Your task to perform on an android device: Open internet settings Image 0: 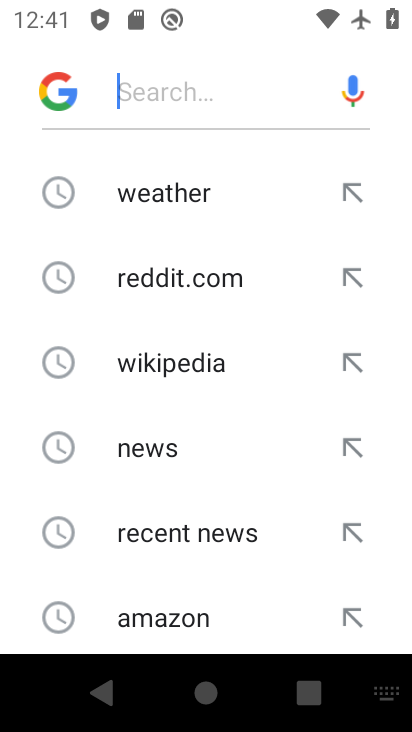
Step 0: press home button
Your task to perform on an android device: Open internet settings Image 1: 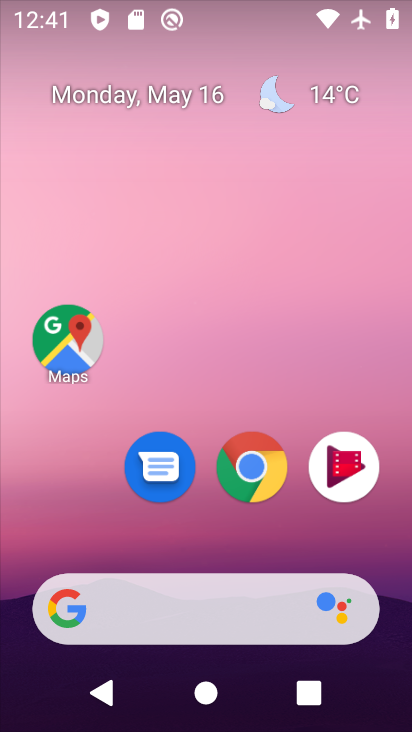
Step 1: drag from (131, 613) to (232, 268)
Your task to perform on an android device: Open internet settings Image 2: 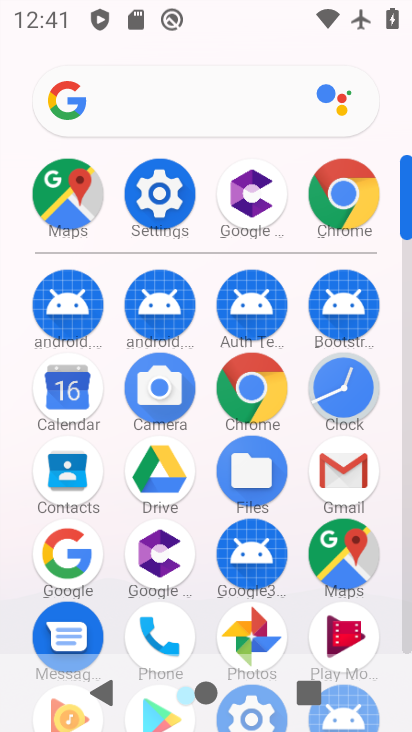
Step 2: click (172, 176)
Your task to perform on an android device: Open internet settings Image 3: 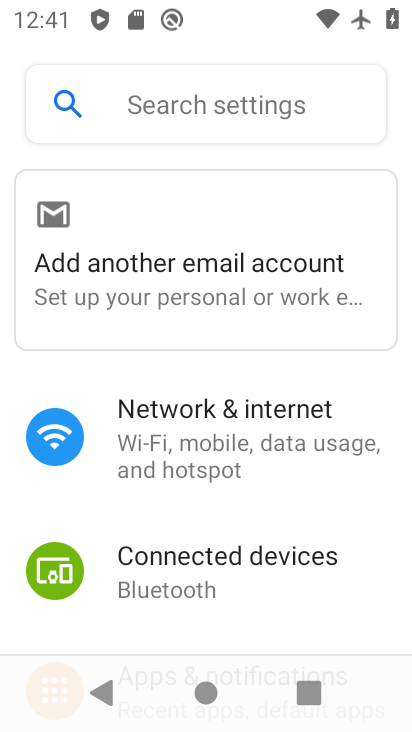
Step 3: click (118, 432)
Your task to perform on an android device: Open internet settings Image 4: 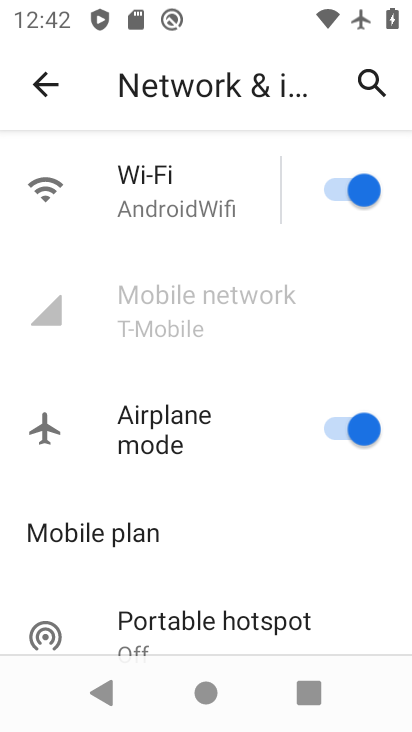
Step 4: task complete